Your task to perform on an android device: open app "VLC for Android" Image 0: 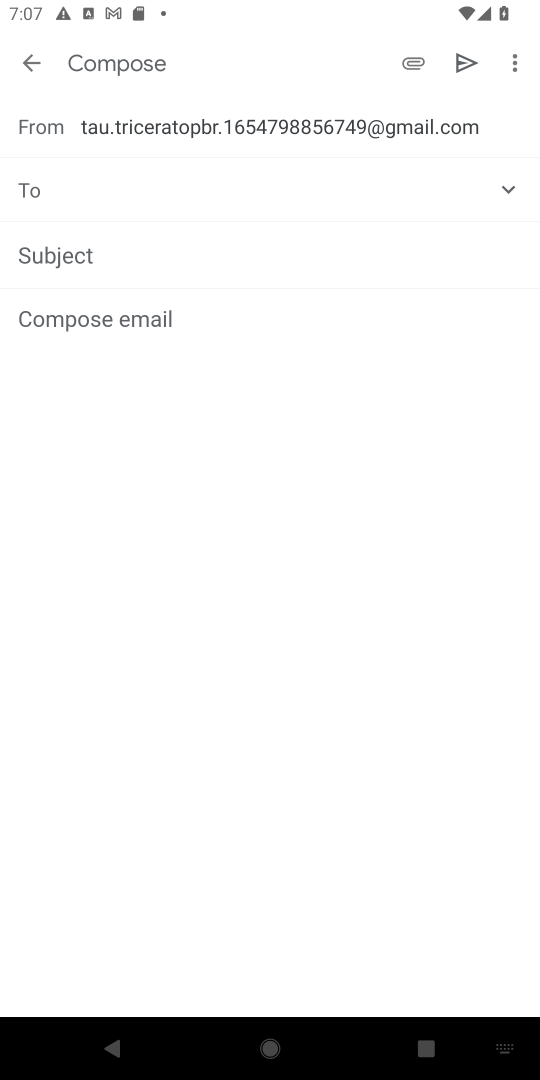
Step 0: press home button
Your task to perform on an android device: open app "VLC for Android" Image 1: 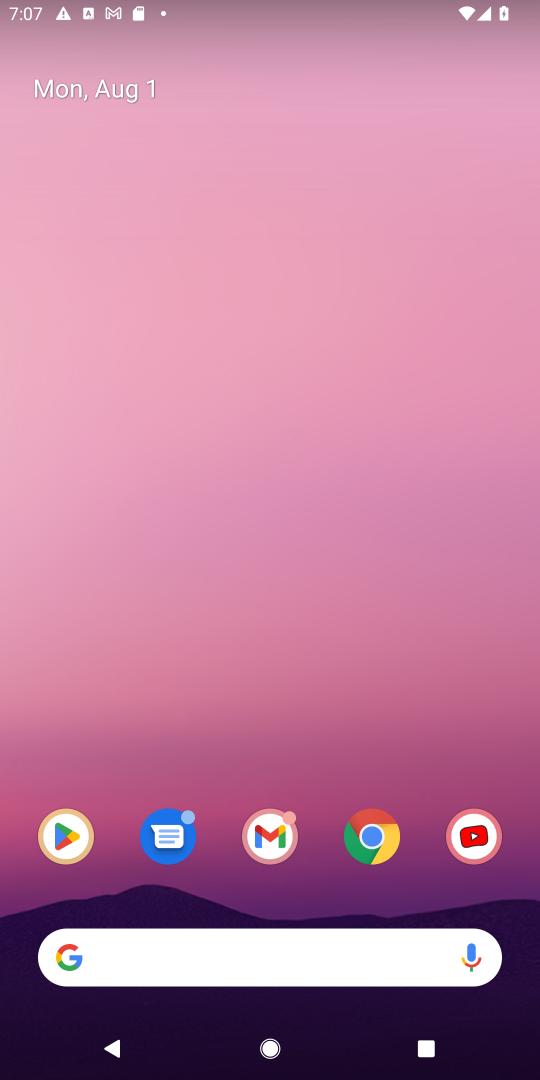
Step 1: click (64, 836)
Your task to perform on an android device: open app "VLC for Android" Image 2: 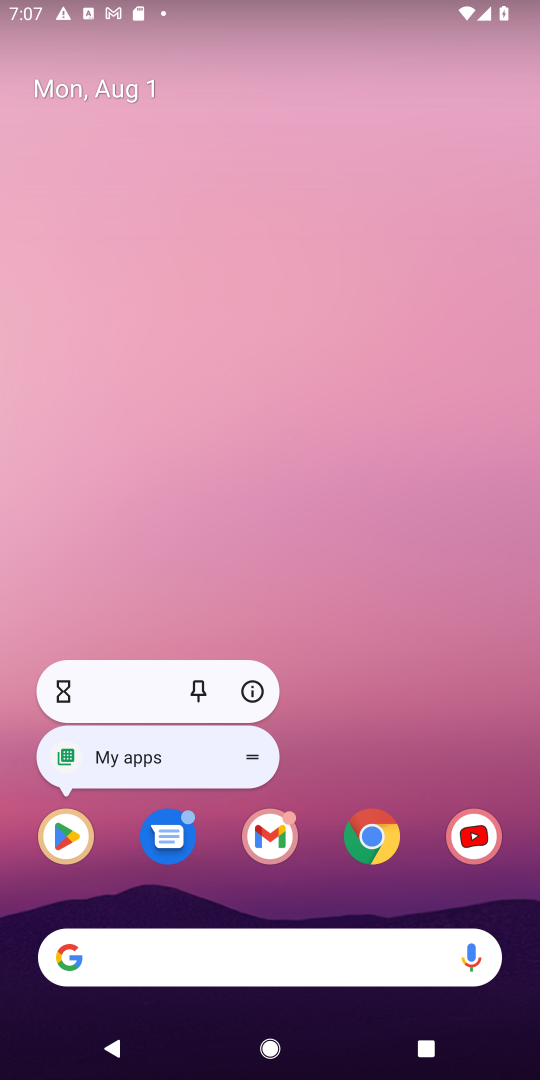
Step 2: click (72, 841)
Your task to perform on an android device: open app "VLC for Android" Image 3: 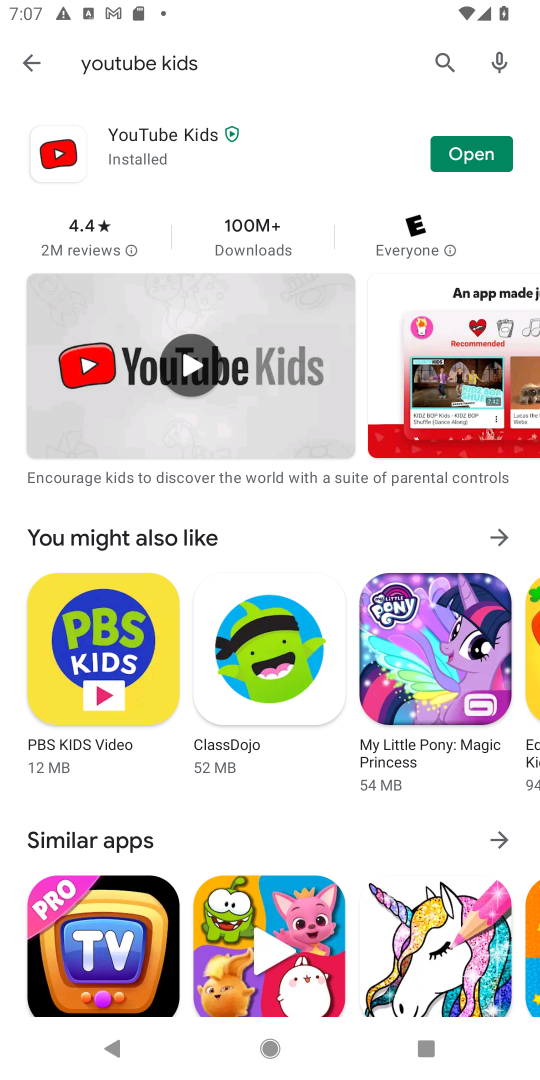
Step 3: click (443, 50)
Your task to perform on an android device: open app "VLC for Android" Image 4: 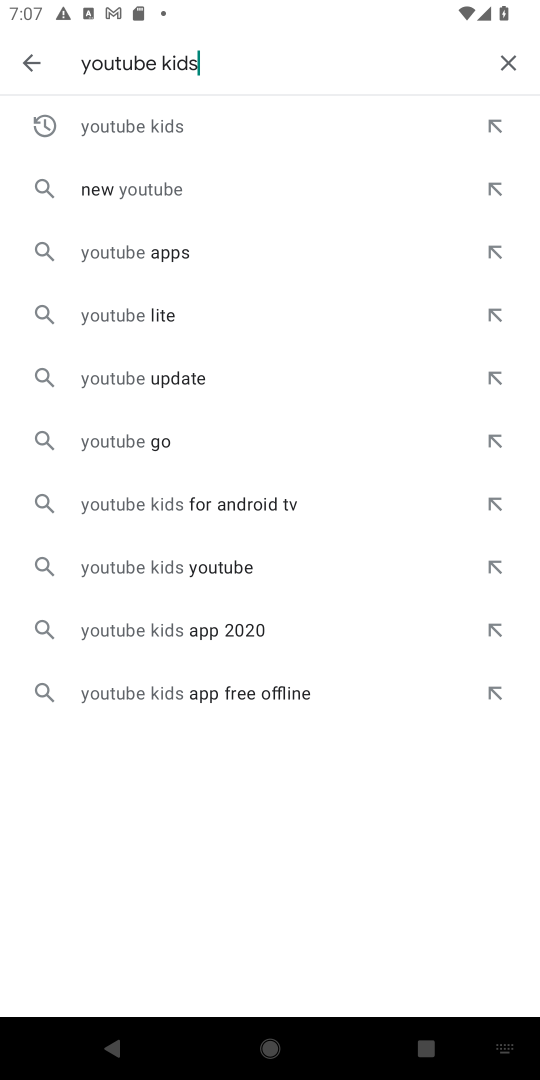
Step 4: click (508, 51)
Your task to perform on an android device: open app "VLC for Android" Image 5: 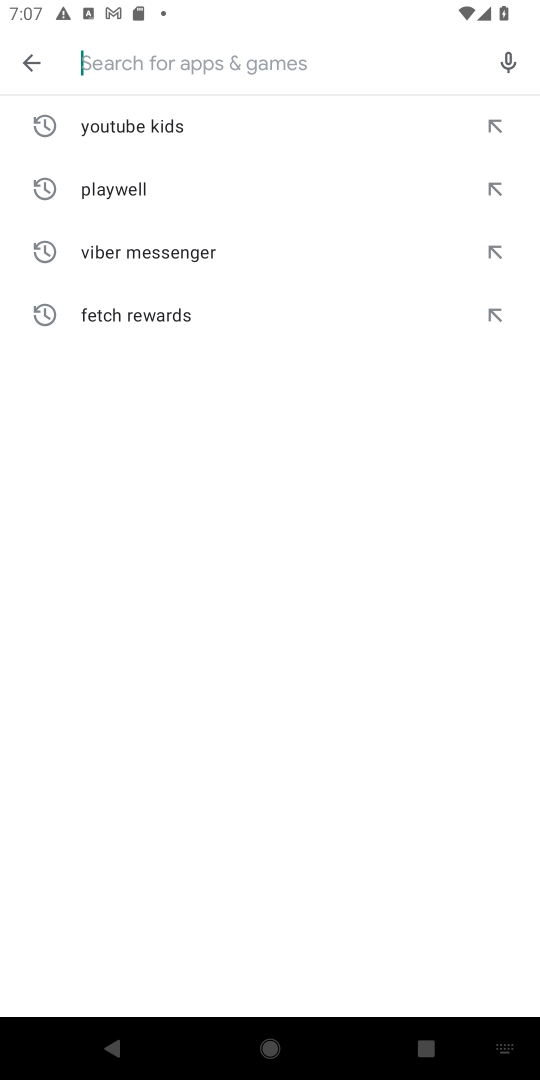
Step 5: type "VLC for Android"
Your task to perform on an android device: open app "VLC for Android" Image 6: 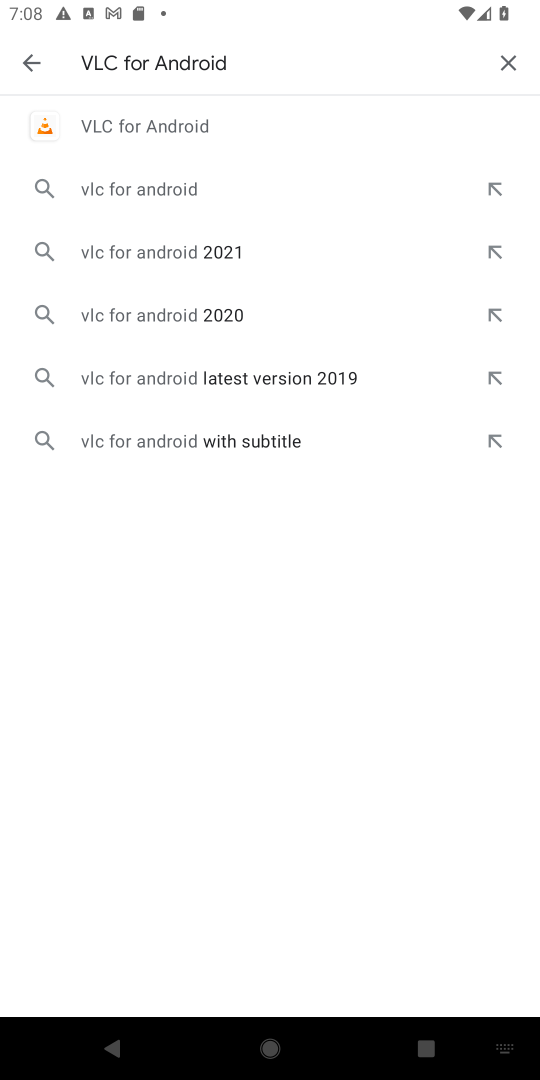
Step 6: click (182, 125)
Your task to perform on an android device: open app "VLC for Android" Image 7: 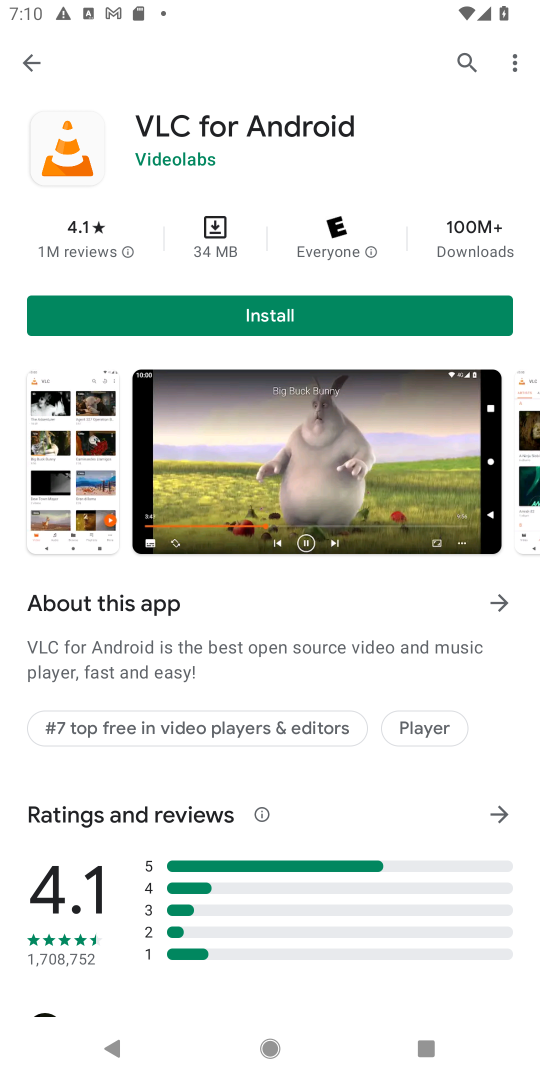
Step 7: task complete